Your task to perform on an android device: set the timer Image 0: 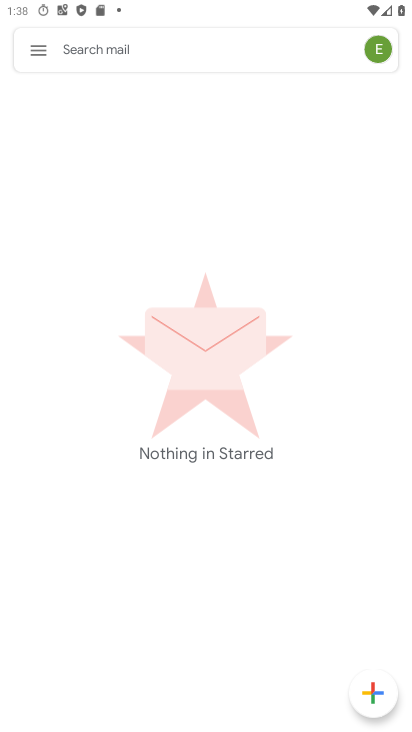
Step 0: press home button
Your task to perform on an android device: set the timer Image 1: 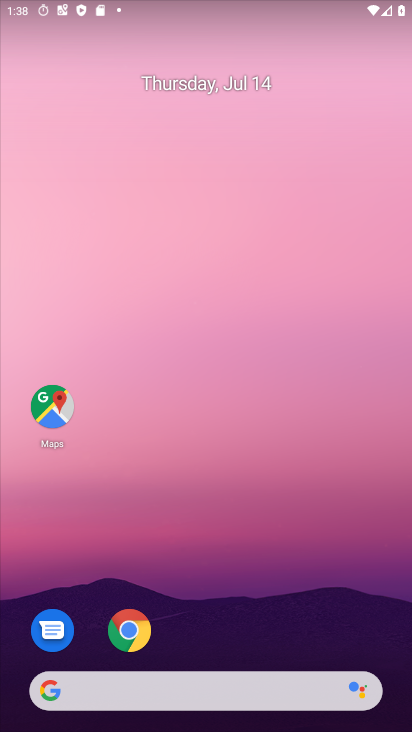
Step 1: drag from (233, 671) to (5, 174)
Your task to perform on an android device: set the timer Image 2: 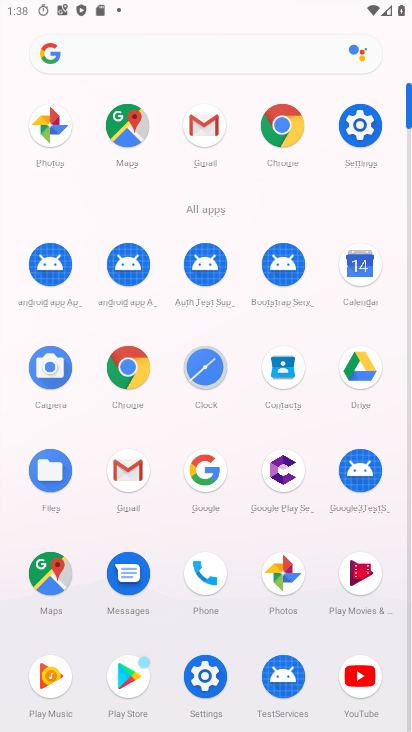
Step 2: click (211, 388)
Your task to perform on an android device: set the timer Image 3: 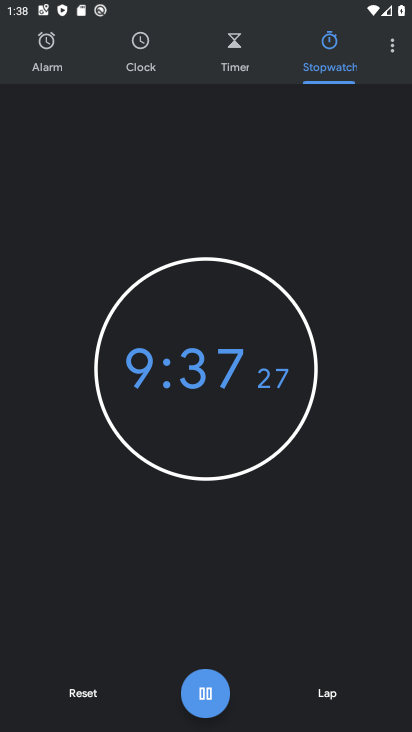
Step 3: click (241, 76)
Your task to perform on an android device: set the timer Image 4: 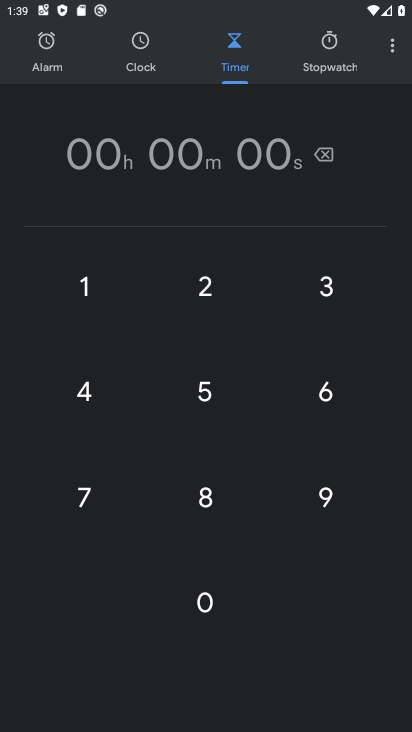
Step 4: click (209, 392)
Your task to perform on an android device: set the timer Image 5: 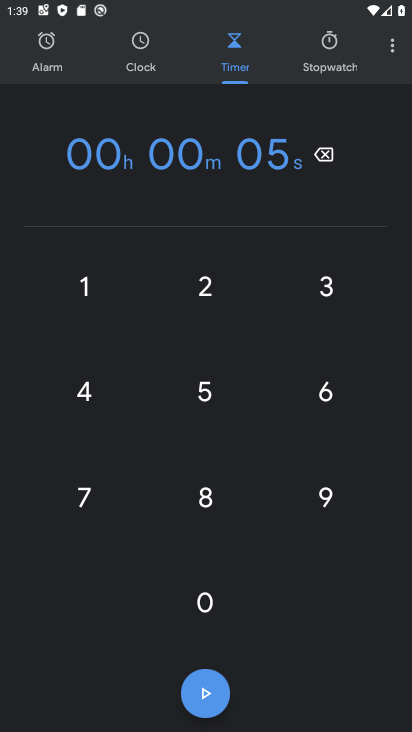
Step 5: click (78, 401)
Your task to perform on an android device: set the timer Image 6: 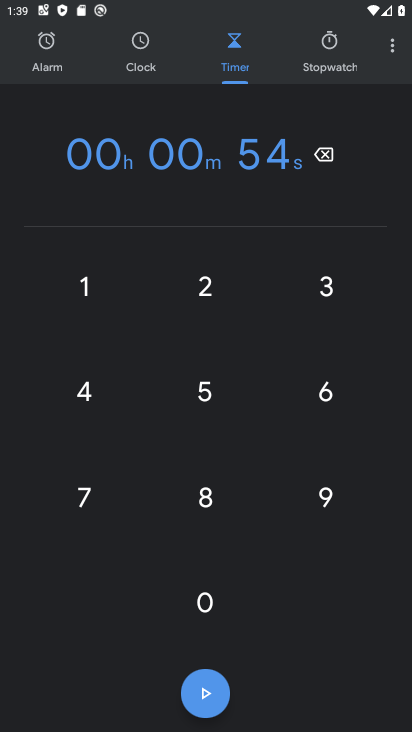
Step 6: click (96, 508)
Your task to perform on an android device: set the timer Image 7: 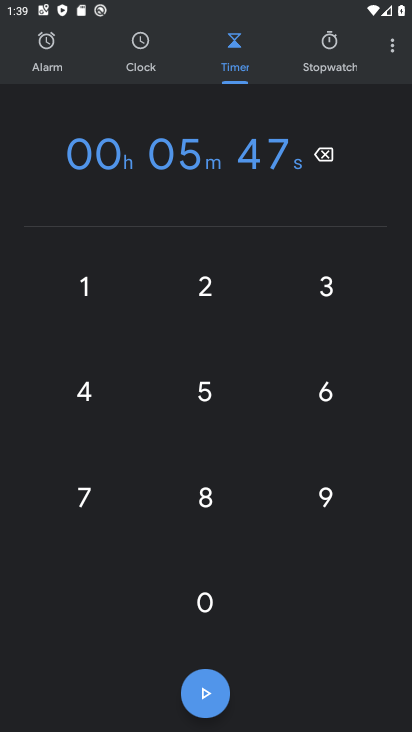
Step 7: click (205, 512)
Your task to perform on an android device: set the timer Image 8: 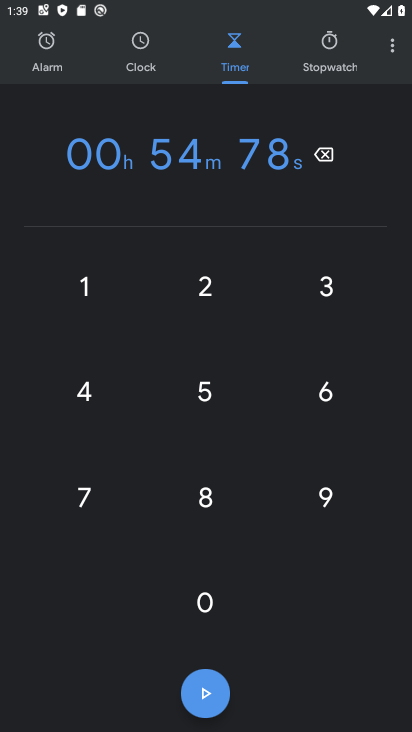
Step 8: click (204, 684)
Your task to perform on an android device: set the timer Image 9: 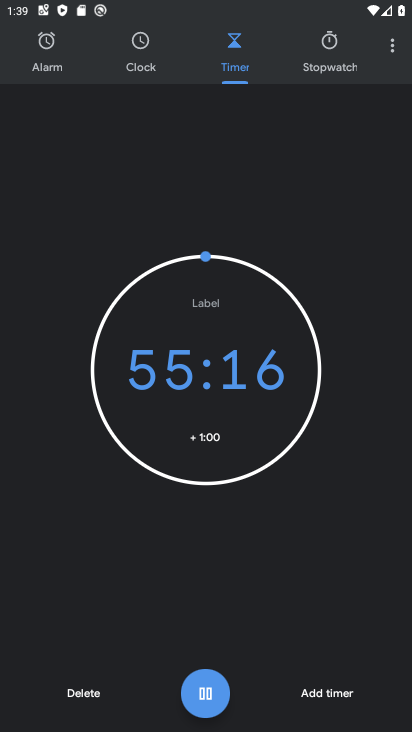
Step 9: task complete